Your task to perform on an android device: Open sound settings Image 0: 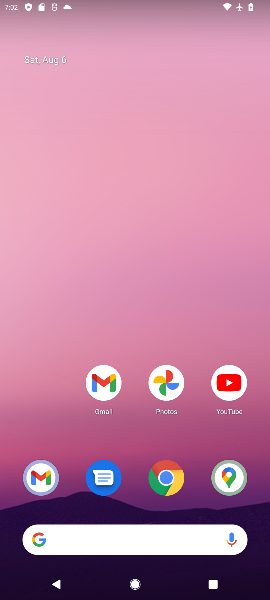
Step 0: press home button
Your task to perform on an android device: Open sound settings Image 1: 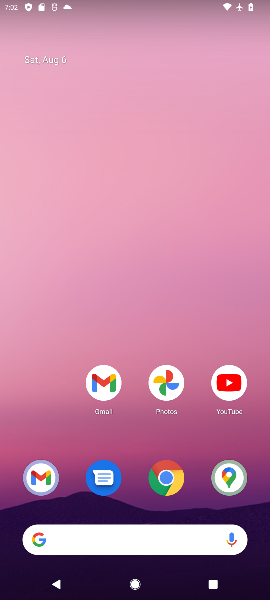
Step 1: drag from (129, 337) to (140, 29)
Your task to perform on an android device: Open sound settings Image 2: 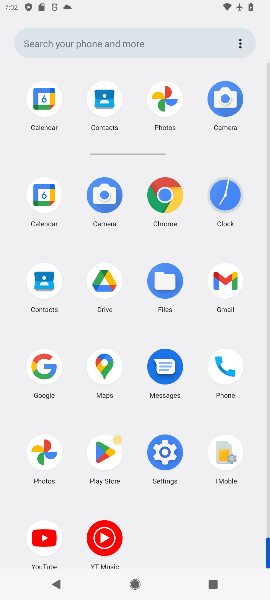
Step 2: click (164, 452)
Your task to perform on an android device: Open sound settings Image 3: 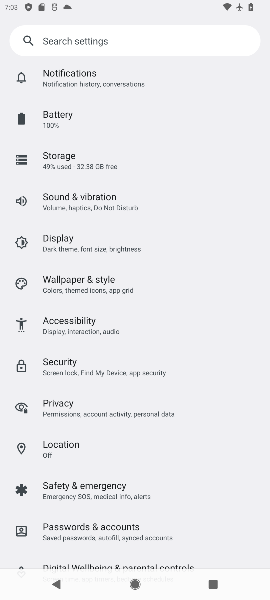
Step 3: drag from (76, 99) to (102, 357)
Your task to perform on an android device: Open sound settings Image 4: 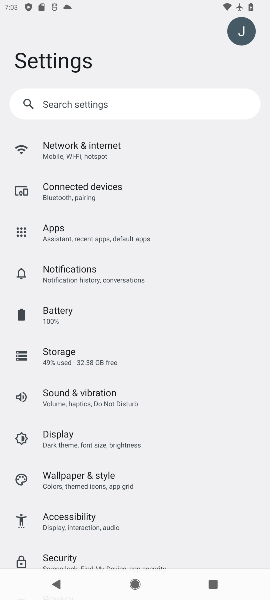
Step 4: click (102, 402)
Your task to perform on an android device: Open sound settings Image 5: 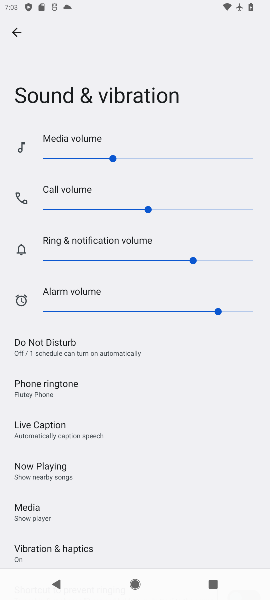
Step 5: task complete